Your task to perform on an android device: manage bookmarks in the chrome app Image 0: 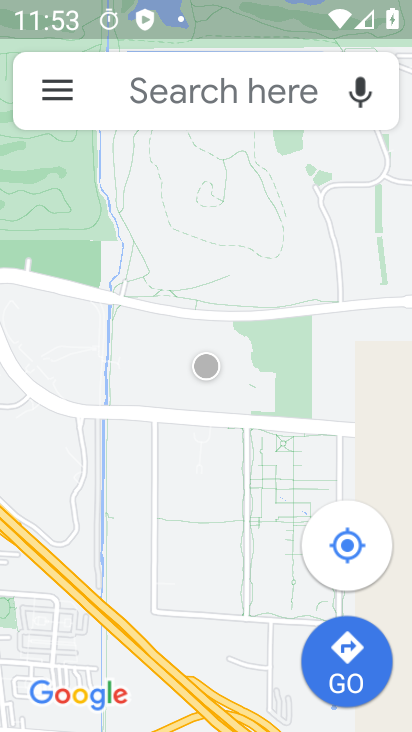
Step 0: click (172, 395)
Your task to perform on an android device: manage bookmarks in the chrome app Image 1: 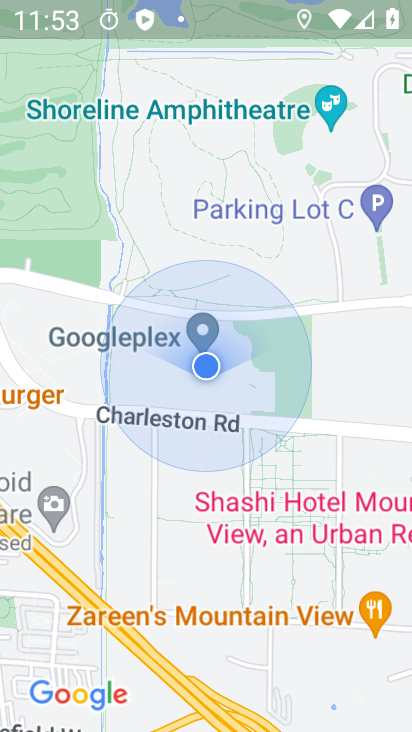
Step 1: press home button
Your task to perform on an android device: manage bookmarks in the chrome app Image 2: 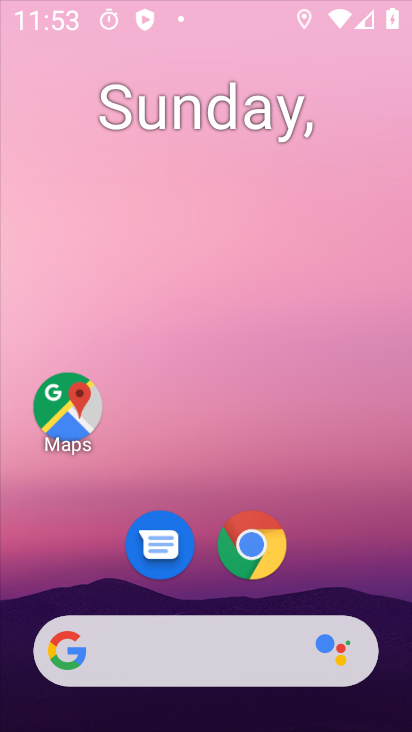
Step 2: drag from (201, 652) to (207, 274)
Your task to perform on an android device: manage bookmarks in the chrome app Image 3: 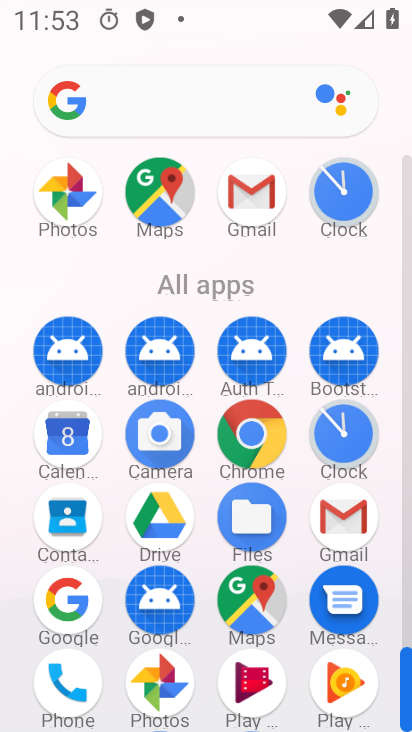
Step 3: click (249, 433)
Your task to perform on an android device: manage bookmarks in the chrome app Image 4: 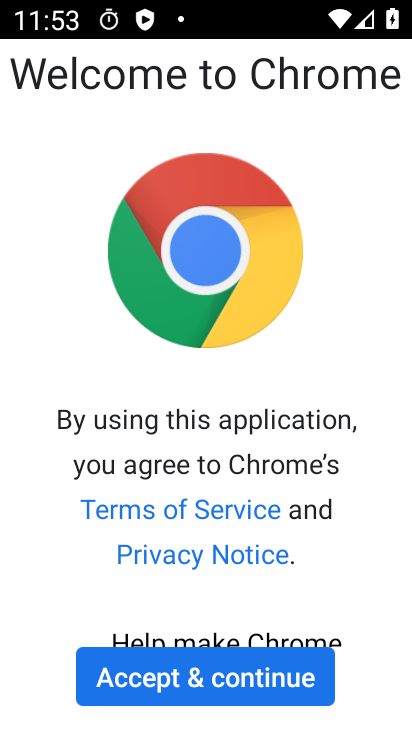
Step 4: click (189, 673)
Your task to perform on an android device: manage bookmarks in the chrome app Image 5: 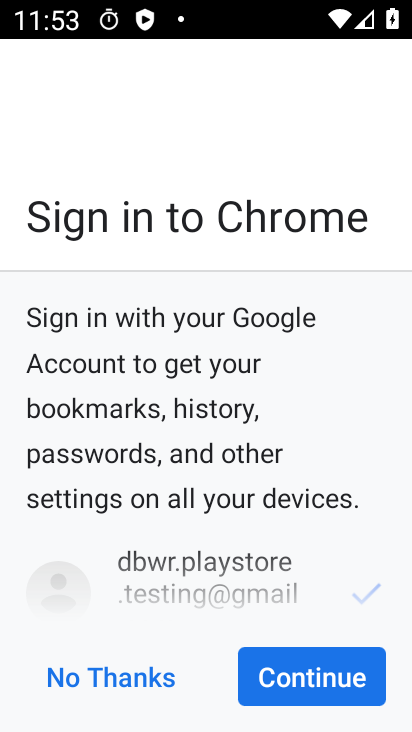
Step 5: click (109, 679)
Your task to perform on an android device: manage bookmarks in the chrome app Image 6: 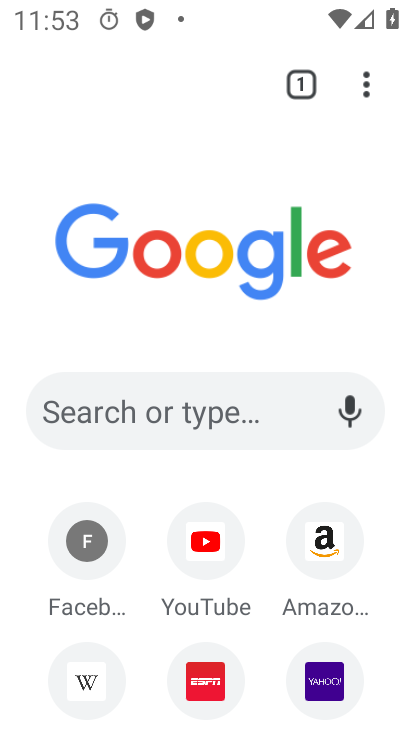
Step 6: drag from (150, 626) to (180, 324)
Your task to perform on an android device: manage bookmarks in the chrome app Image 7: 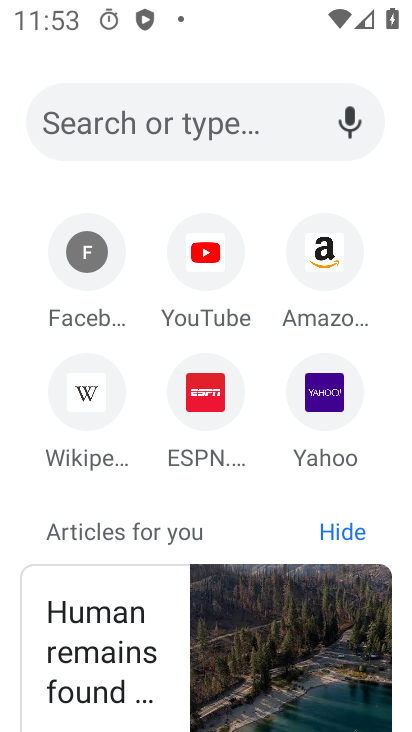
Step 7: drag from (325, 216) to (314, 557)
Your task to perform on an android device: manage bookmarks in the chrome app Image 8: 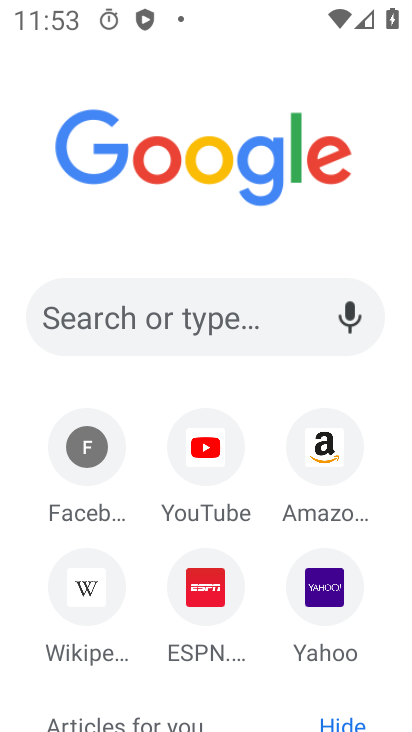
Step 8: drag from (208, 218) to (201, 438)
Your task to perform on an android device: manage bookmarks in the chrome app Image 9: 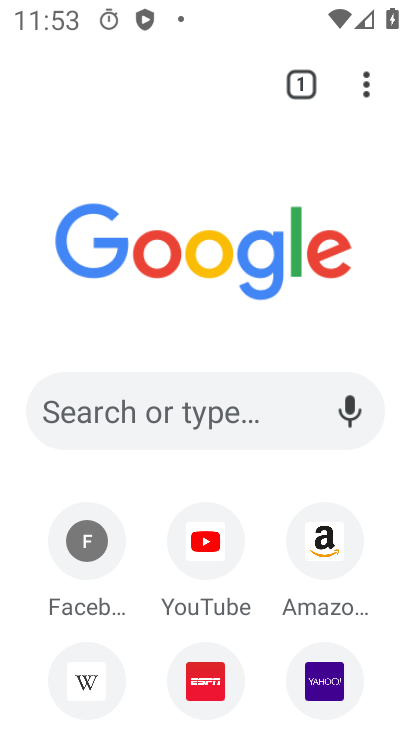
Step 9: click (370, 84)
Your task to perform on an android device: manage bookmarks in the chrome app Image 10: 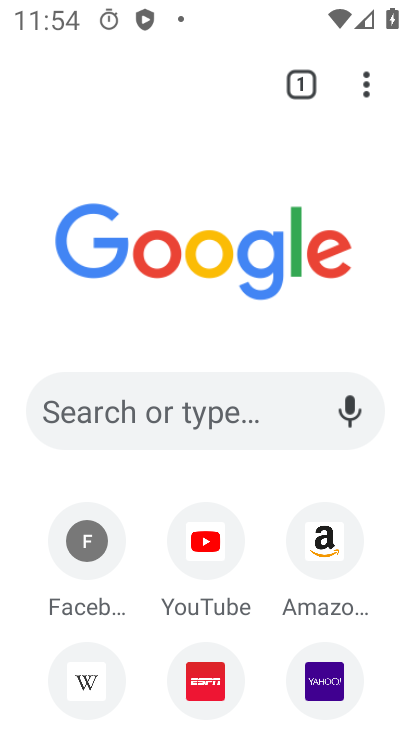
Step 10: click (370, 84)
Your task to perform on an android device: manage bookmarks in the chrome app Image 11: 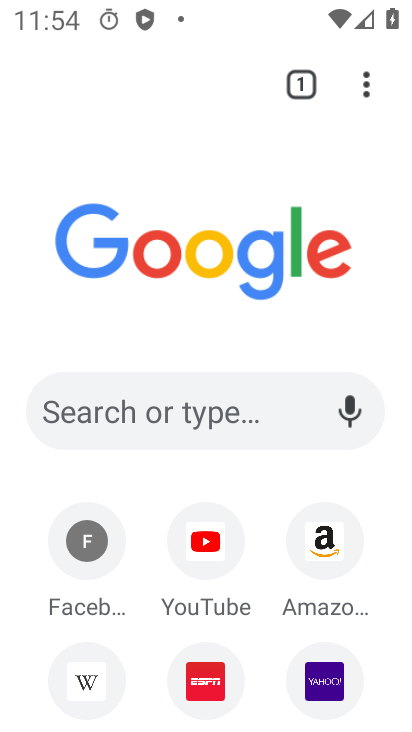
Step 11: drag from (370, 84) to (147, 331)
Your task to perform on an android device: manage bookmarks in the chrome app Image 12: 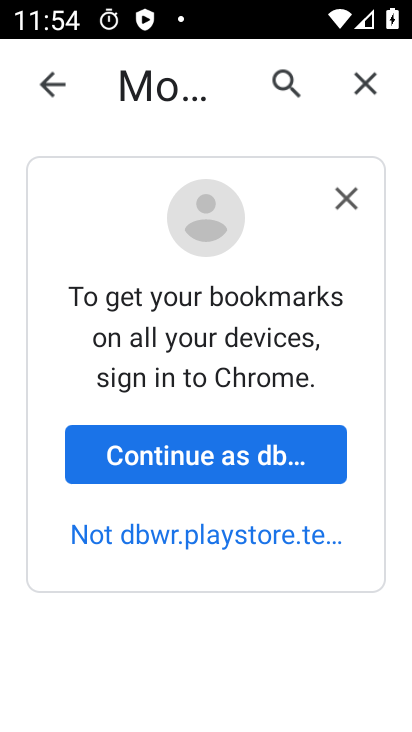
Step 12: click (205, 471)
Your task to perform on an android device: manage bookmarks in the chrome app Image 13: 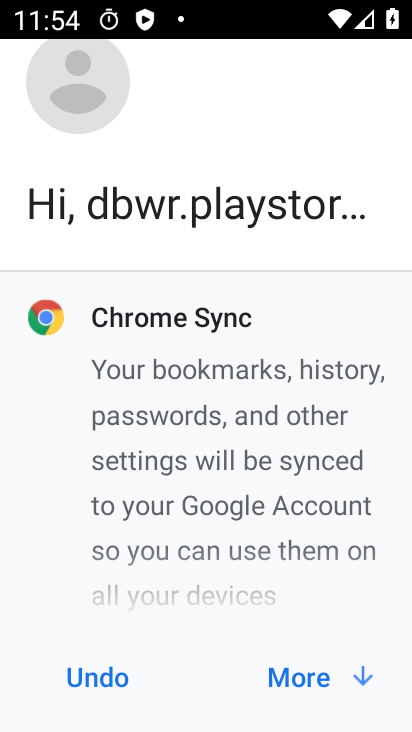
Step 13: drag from (198, 634) to (201, 443)
Your task to perform on an android device: manage bookmarks in the chrome app Image 14: 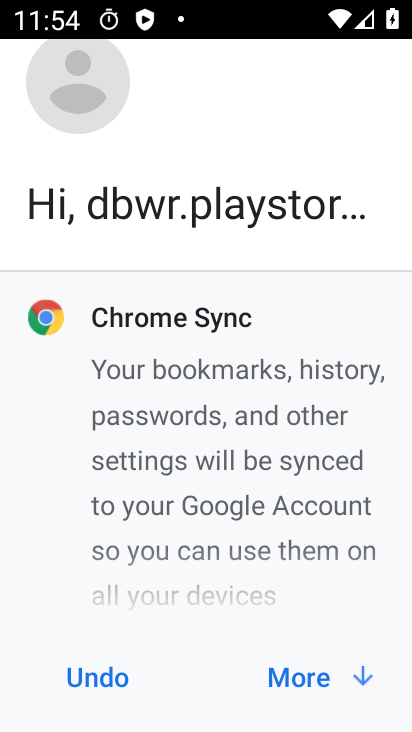
Step 14: drag from (167, 529) to (160, 242)
Your task to perform on an android device: manage bookmarks in the chrome app Image 15: 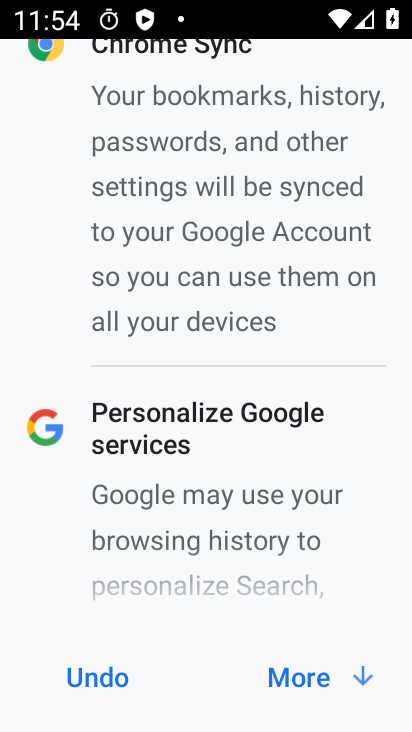
Step 15: click (304, 687)
Your task to perform on an android device: manage bookmarks in the chrome app Image 16: 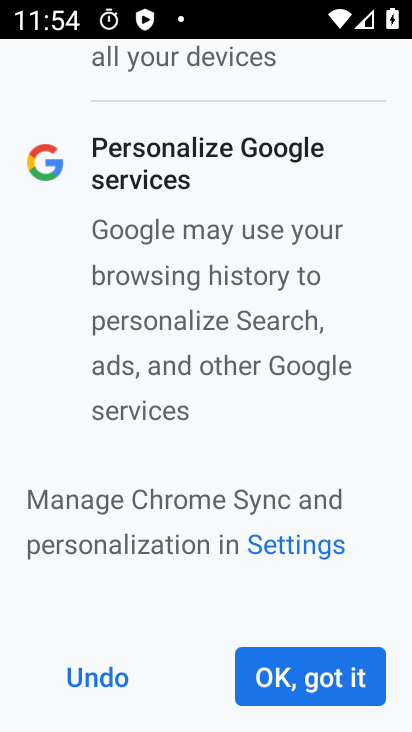
Step 16: click (272, 694)
Your task to perform on an android device: manage bookmarks in the chrome app Image 17: 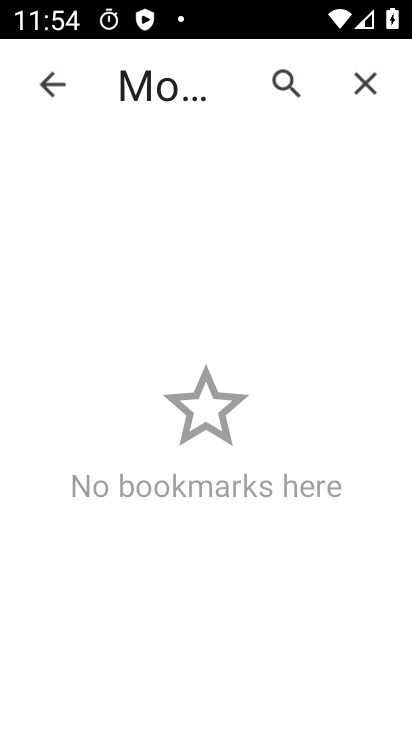
Step 17: task complete